Your task to perform on an android device: Go to Maps Image 0: 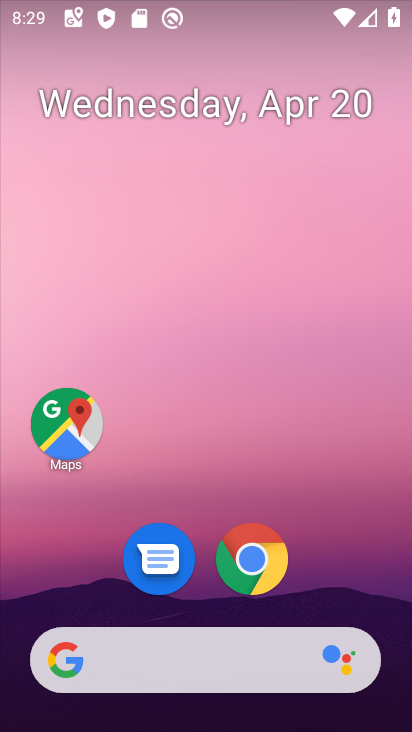
Step 0: click (66, 426)
Your task to perform on an android device: Go to Maps Image 1: 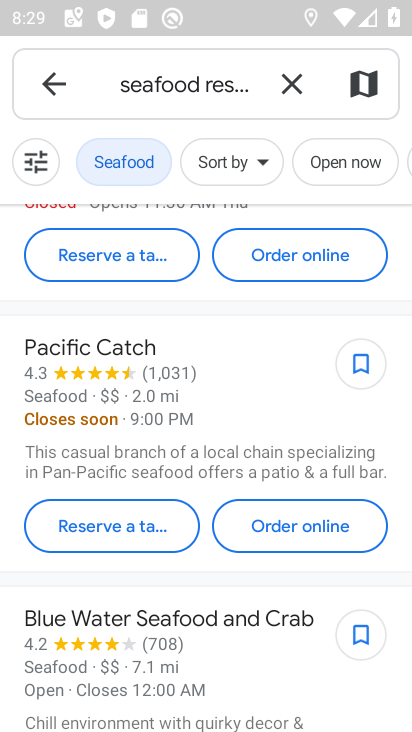
Step 1: task complete